Your task to perform on an android device: check storage Image 0: 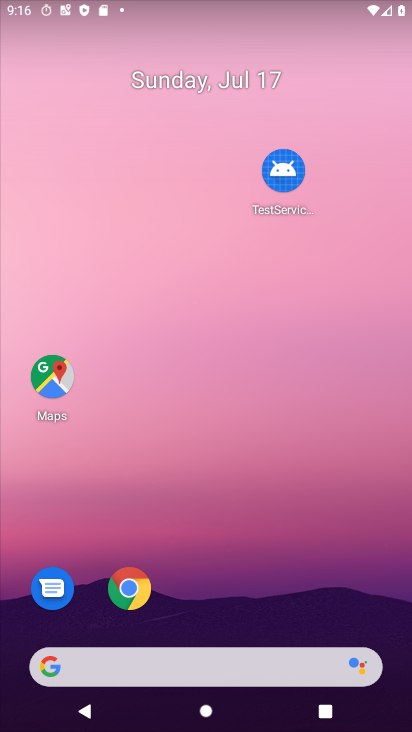
Step 0: drag from (259, 659) to (346, 137)
Your task to perform on an android device: check storage Image 1: 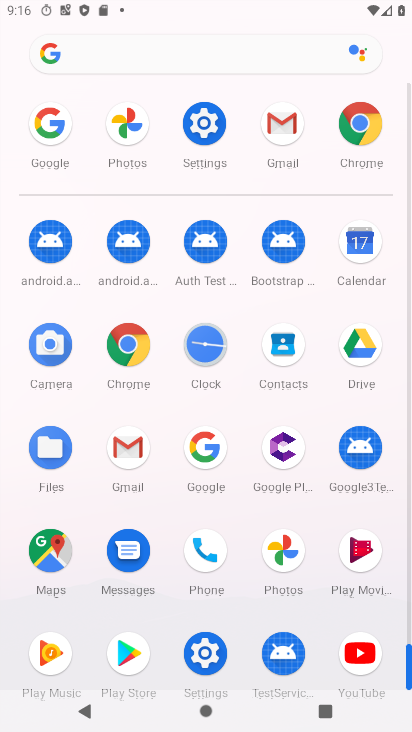
Step 1: click (212, 133)
Your task to perform on an android device: check storage Image 2: 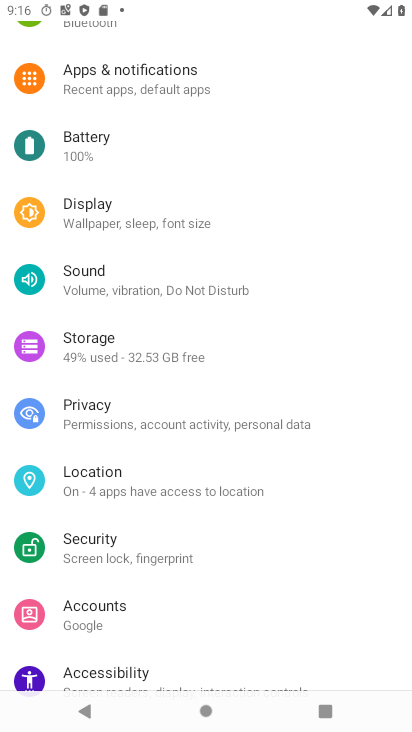
Step 2: drag from (211, 189) to (274, 256)
Your task to perform on an android device: check storage Image 3: 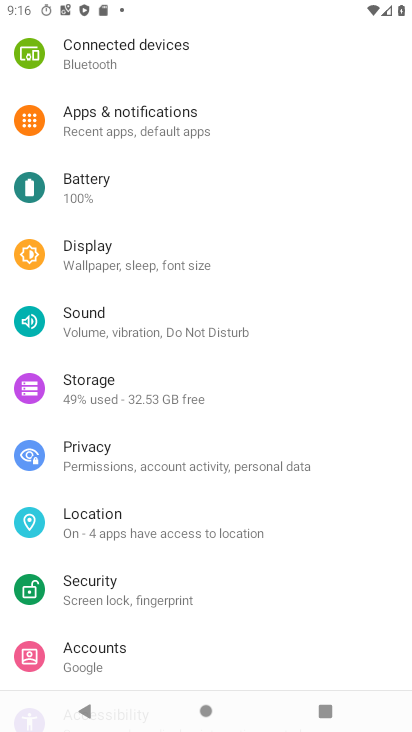
Step 3: click (128, 386)
Your task to perform on an android device: check storage Image 4: 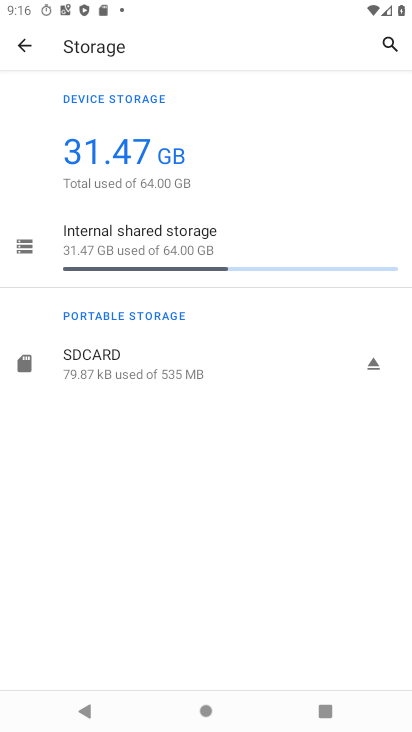
Step 4: click (188, 252)
Your task to perform on an android device: check storage Image 5: 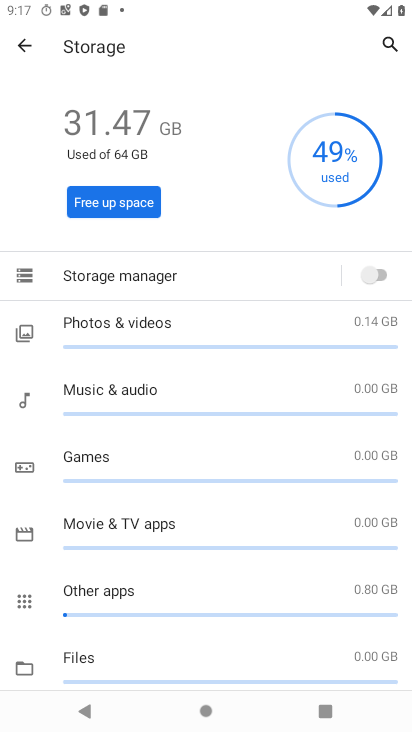
Step 5: task complete